Your task to perform on an android device: Clear the cart on amazon.com. Add bose soundlink to the cart on amazon.com, then select checkout. Image 0: 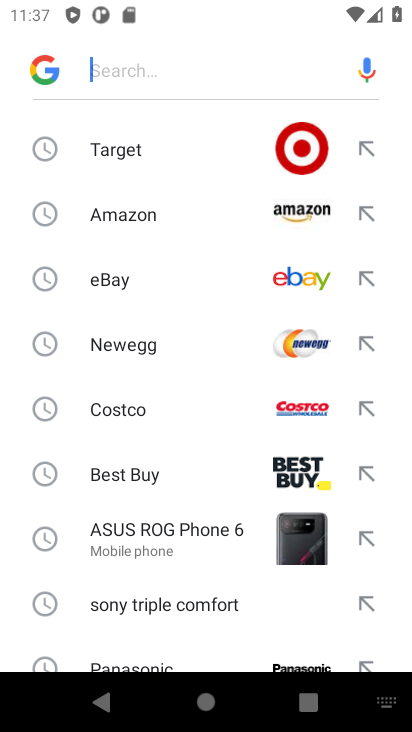
Step 0: type "amazon.com"
Your task to perform on an android device: Clear the cart on amazon.com. Add bose soundlink to the cart on amazon.com, then select checkout. Image 1: 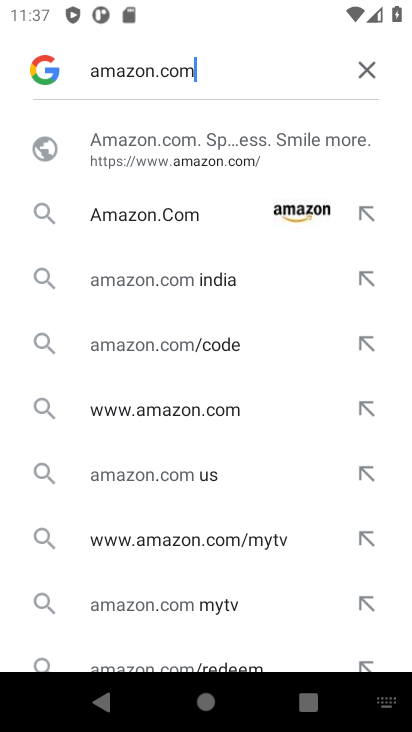
Step 1: press enter
Your task to perform on an android device: Clear the cart on amazon.com. Add bose soundlink to the cart on amazon.com, then select checkout. Image 2: 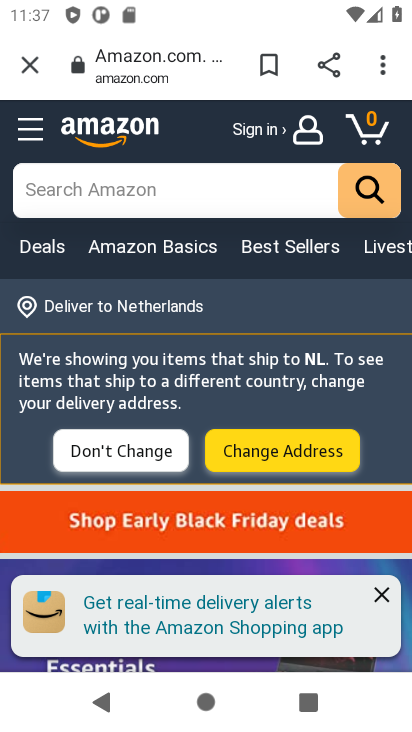
Step 2: click (190, 196)
Your task to perform on an android device: Clear the cart on amazon.com. Add bose soundlink to the cart on amazon.com, then select checkout. Image 3: 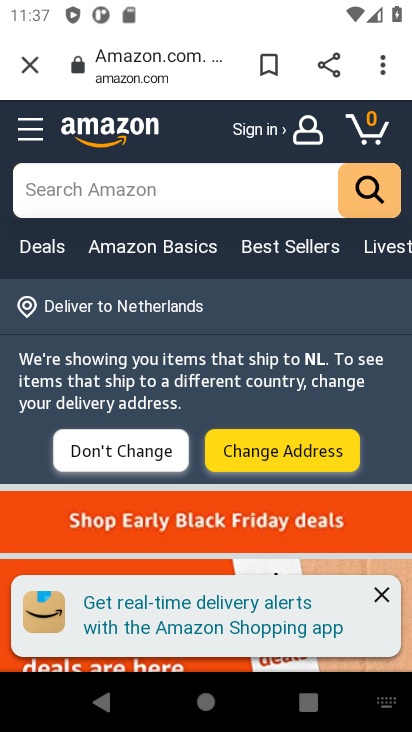
Step 3: type "bose soundlink"
Your task to perform on an android device: Clear the cart on amazon.com. Add bose soundlink to the cart on amazon.com, then select checkout. Image 4: 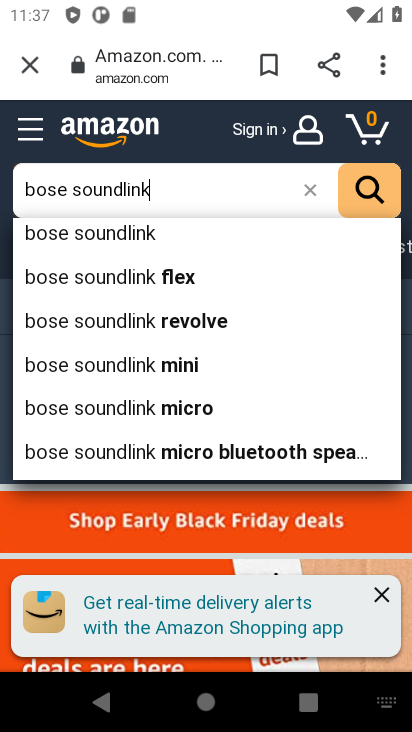
Step 4: press enter
Your task to perform on an android device: Clear the cart on amazon.com. Add bose soundlink to the cart on amazon.com, then select checkout. Image 5: 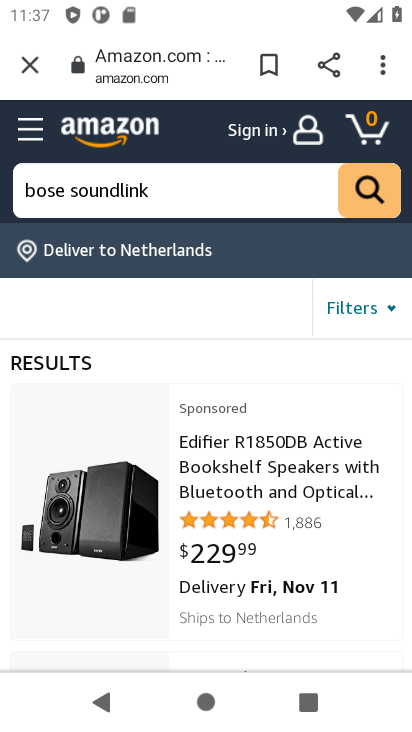
Step 5: drag from (280, 565) to (339, 326)
Your task to perform on an android device: Clear the cart on amazon.com. Add bose soundlink to the cart on amazon.com, then select checkout. Image 6: 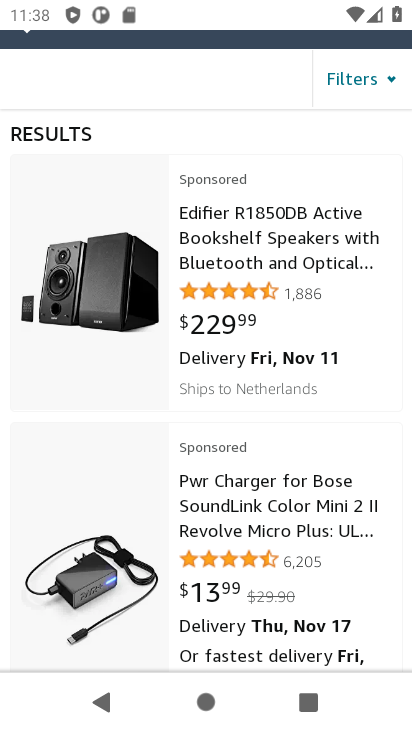
Step 6: click (128, 290)
Your task to perform on an android device: Clear the cart on amazon.com. Add bose soundlink to the cart on amazon.com, then select checkout. Image 7: 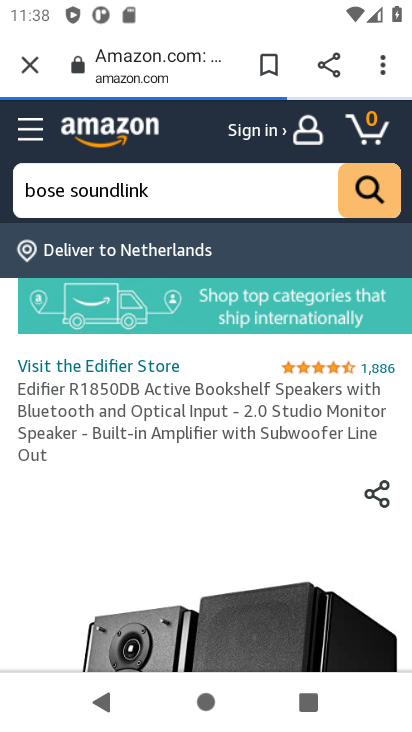
Step 7: drag from (271, 548) to (306, 292)
Your task to perform on an android device: Clear the cart on amazon.com. Add bose soundlink to the cart on amazon.com, then select checkout. Image 8: 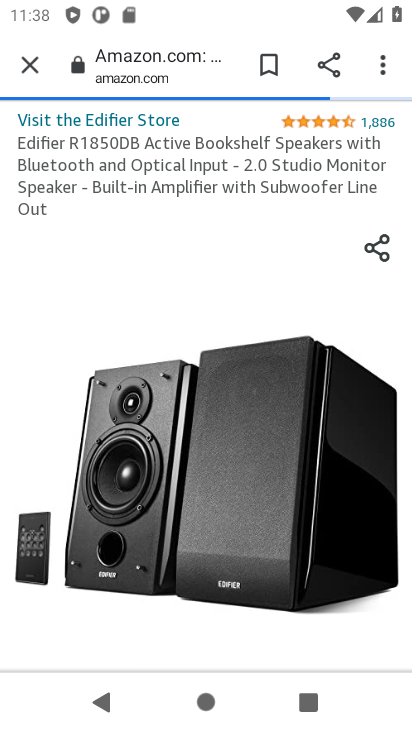
Step 8: drag from (313, 489) to (346, 265)
Your task to perform on an android device: Clear the cart on amazon.com. Add bose soundlink to the cart on amazon.com, then select checkout. Image 9: 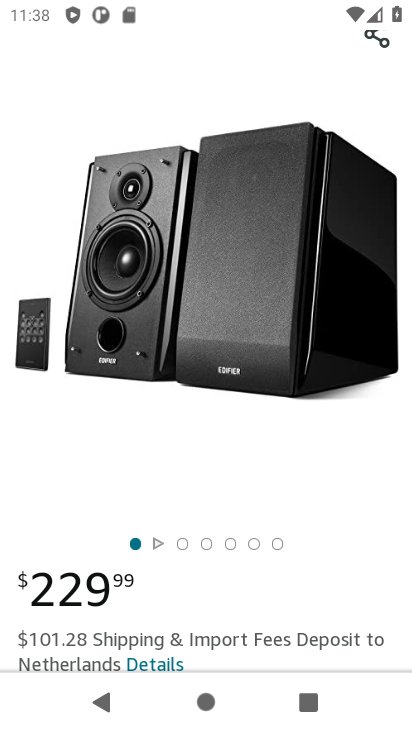
Step 9: drag from (296, 553) to (318, 304)
Your task to perform on an android device: Clear the cart on amazon.com. Add bose soundlink to the cart on amazon.com, then select checkout. Image 10: 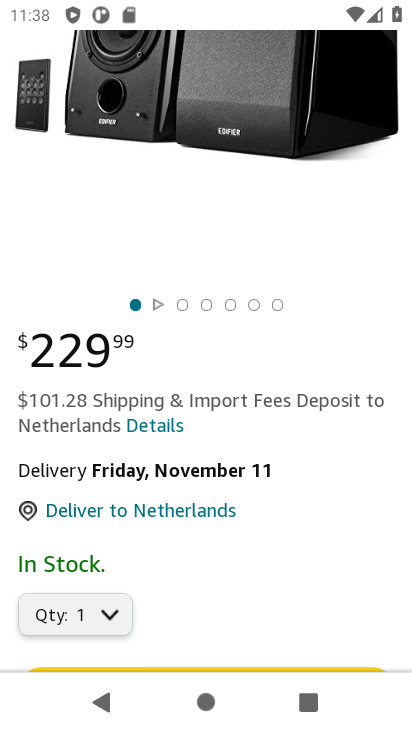
Step 10: drag from (267, 577) to (278, 249)
Your task to perform on an android device: Clear the cart on amazon.com. Add bose soundlink to the cart on amazon.com, then select checkout. Image 11: 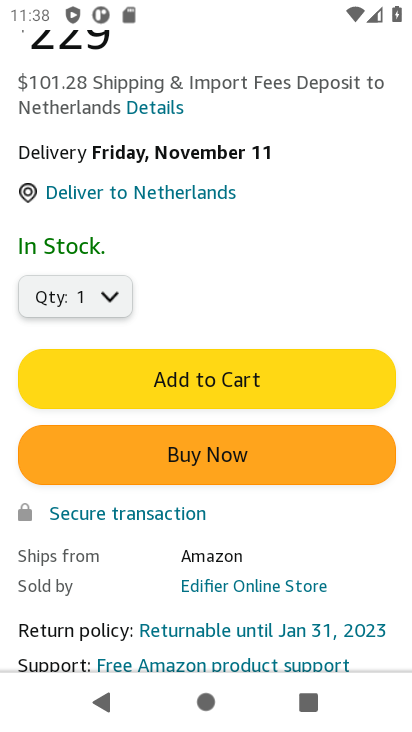
Step 11: click (224, 377)
Your task to perform on an android device: Clear the cart on amazon.com. Add bose soundlink to the cart on amazon.com, then select checkout. Image 12: 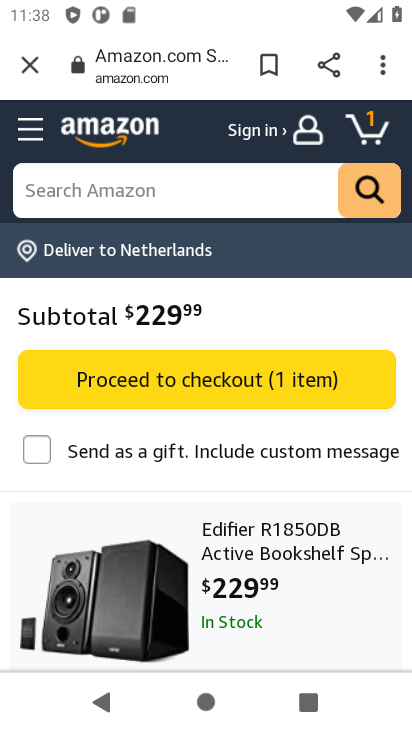
Step 12: click (228, 386)
Your task to perform on an android device: Clear the cart on amazon.com. Add bose soundlink to the cart on amazon.com, then select checkout. Image 13: 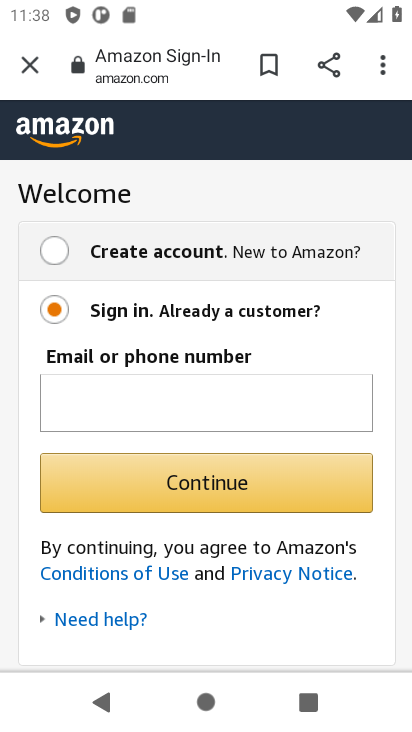
Step 13: task complete